Your task to perform on an android device: What's the weather today? Image 0: 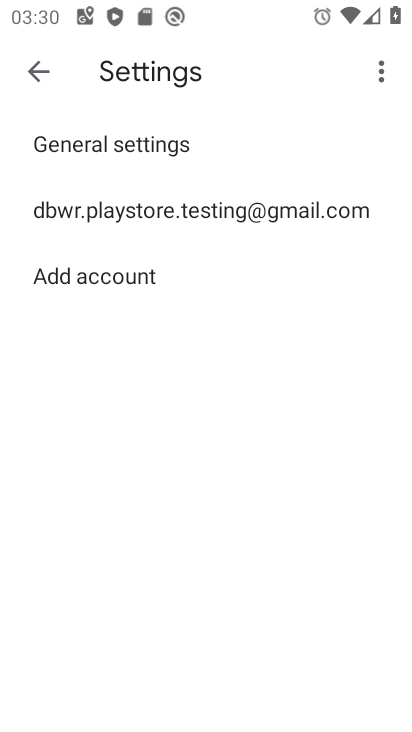
Step 0: press home button
Your task to perform on an android device: What's the weather today? Image 1: 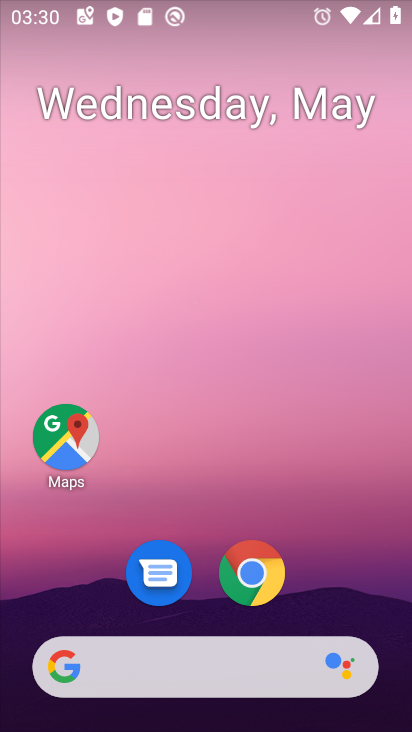
Step 1: drag from (221, 721) to (229, 13)
Your task to perform on an android device: What's the weather today? Image 2: 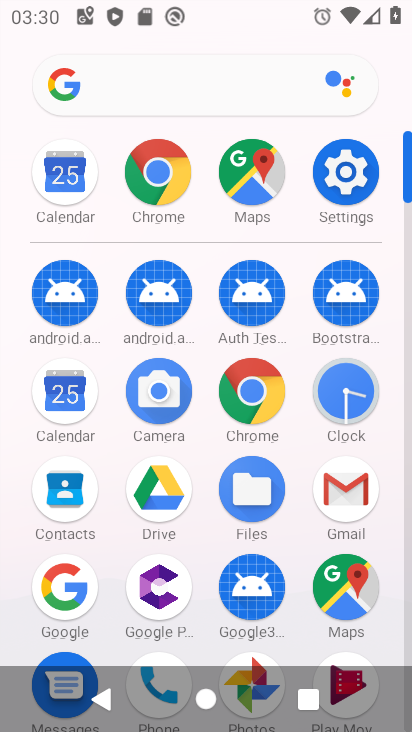
Step 2: click (56, 574)
Your task to perform on an android device: What's the weather today? Image 3: 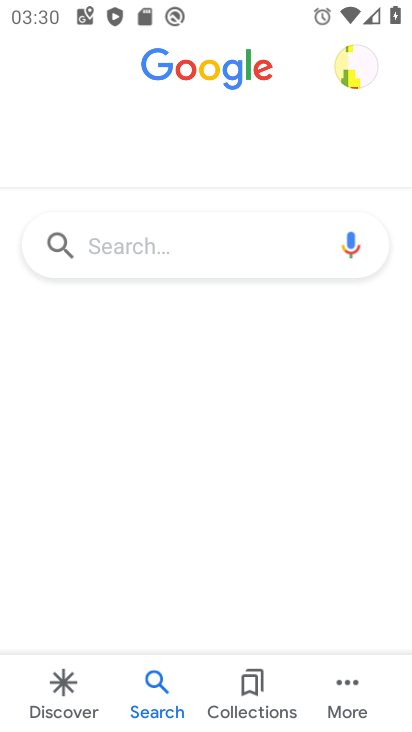
Step 3: click (149, 251)
Your task to perform on an android device: What's the weather today? Image 4: 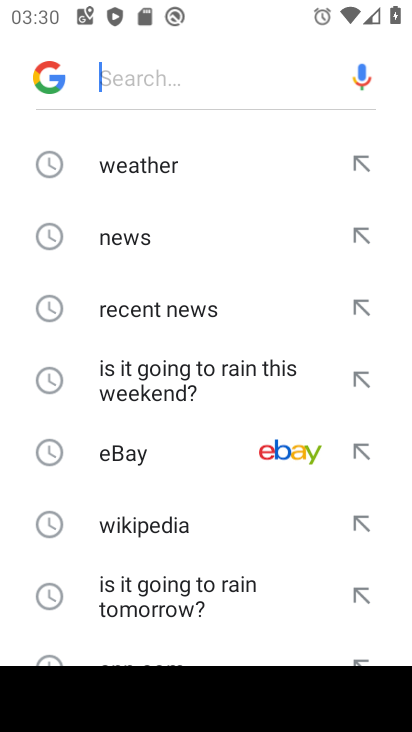
Step 4: click (132, 157)
Your task to perform on an android device: What's the weather today? Image 5: 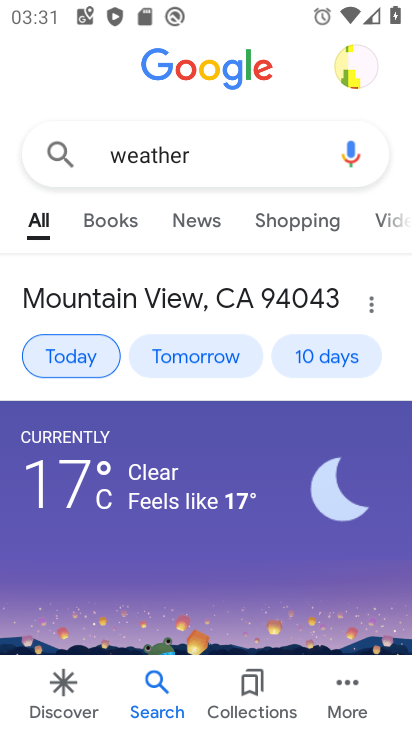
Step 5: click (73, 360)
Your task to perform on an android device: What's the weather today? Image 6: 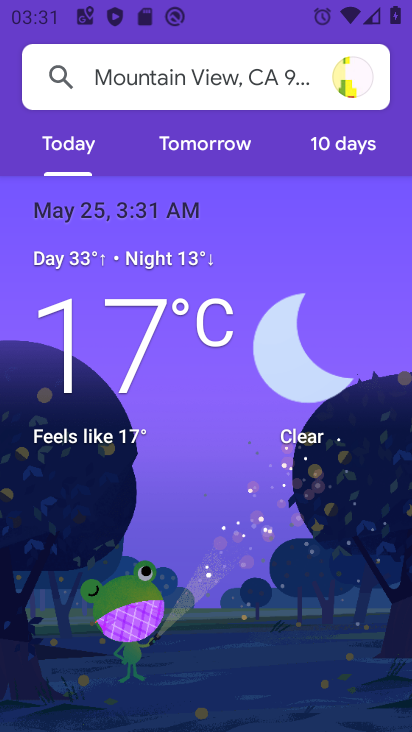
Step 6: task complete